Your task to perform on an android device: allow cookies in the chrome app Image 0: 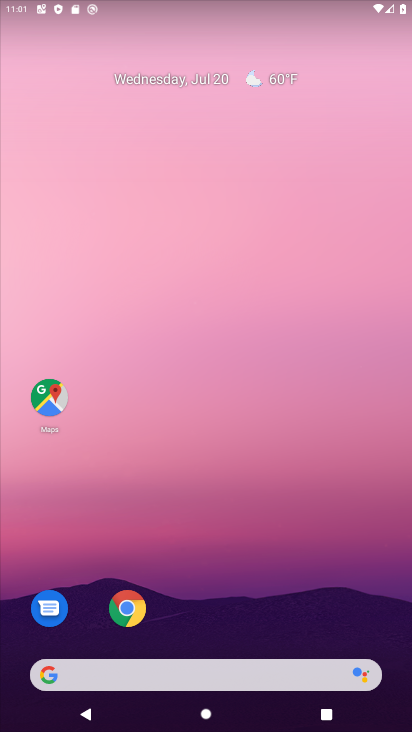
Step 0: click (122, 619)
Your task to perform on an android device: allow cookies in the chrome app Image 1: 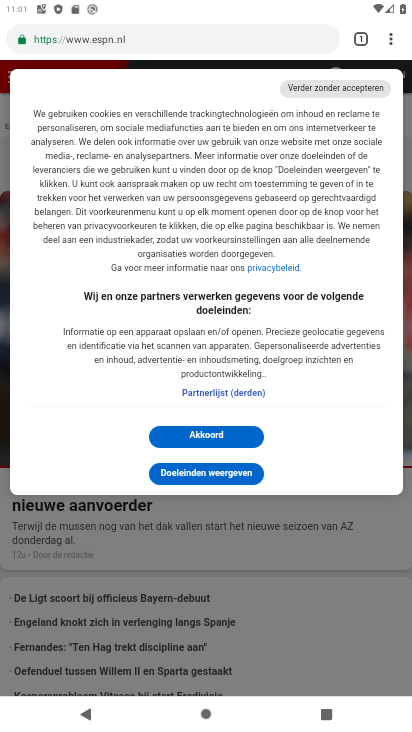
Step 1: click (387, 38)
Your task to perform on an android device: allow cookies in the chrome app Image 2: 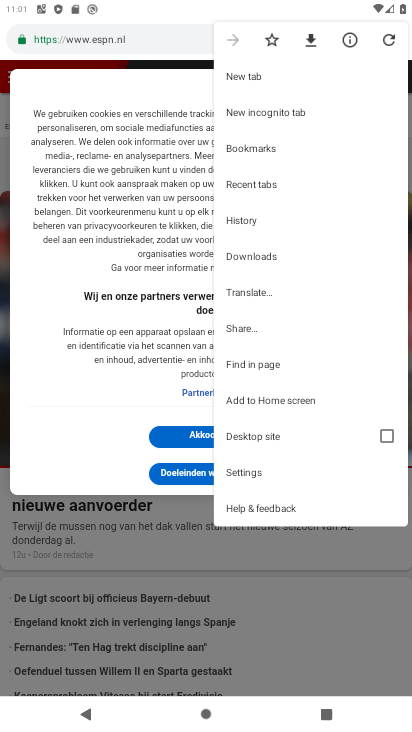
Step 2: click (267, 484)
Your task to perform on an android device: allow cookies in the chrome app Image 3: 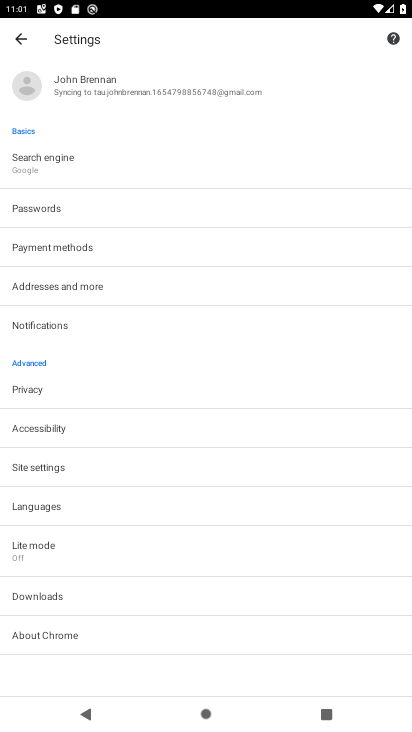
Step 3: click (60, 471)
Your task to perform on an android device: allow cookies in the chrome app Image 4: 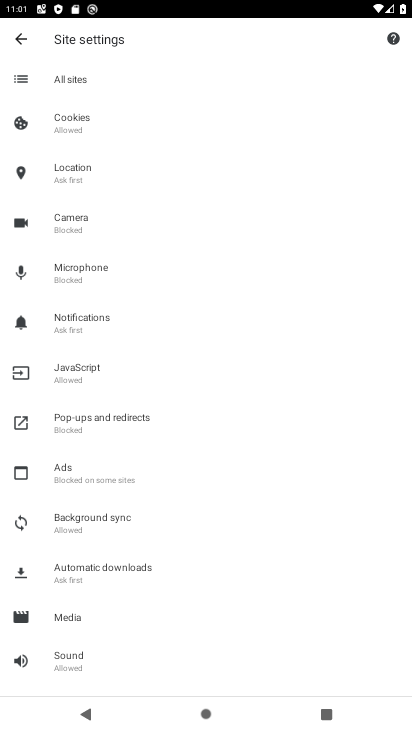
Step 4: click (74, 124)
Your task to perform on an android device: allow cookies in the chrome app Image 5: 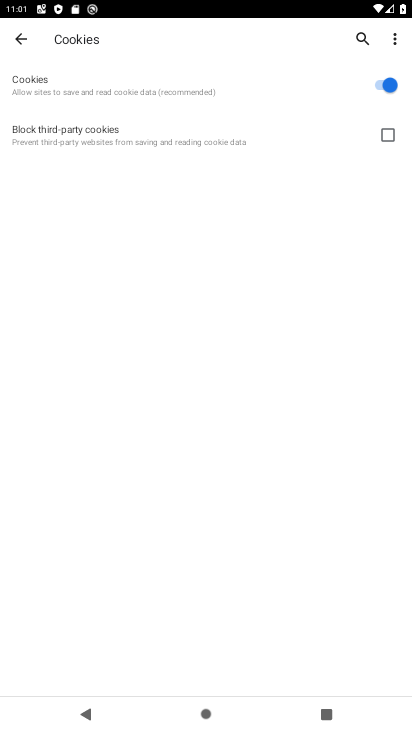
Step 5: task complete